Your task to perform on an android device: Open the stopwatch Image 0: 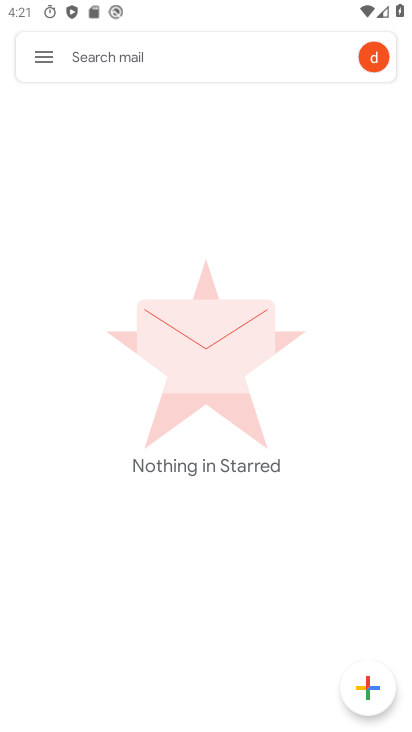
Step 0: press home button
Your task to perform on an android device: Open the stopwatch Image 1: 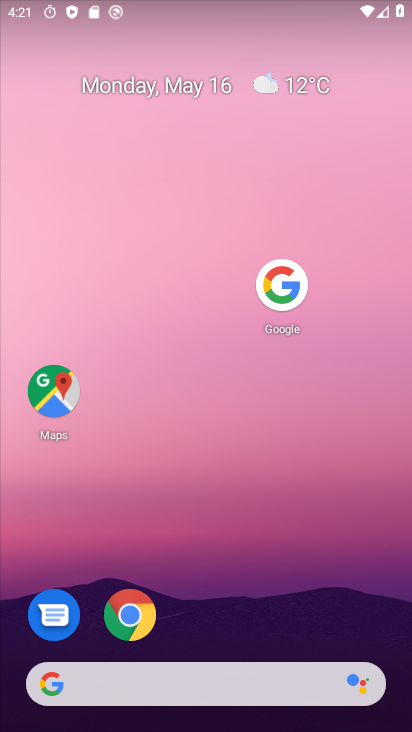
Step 1: drag from (227, 655) to (361, 0)
Your task to perform on an android device: Open the stopwatch Image 2: 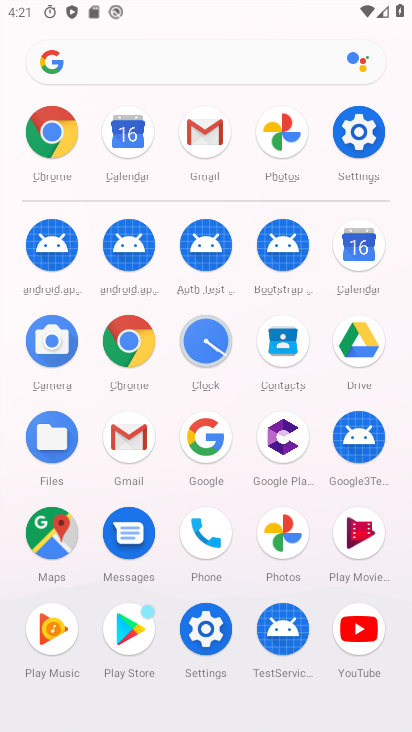
Step 2: click (204, 326)
Your task to perform on an android device: Open the stopwatch Image 3: 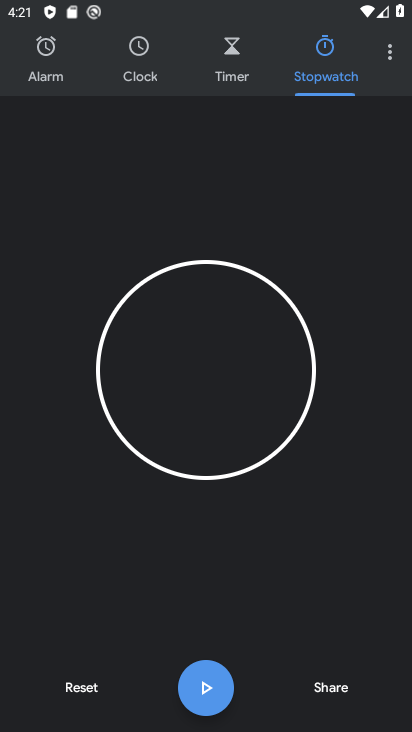
Step 3: task complete